Your task to perform on an android device: change the clock display to show seconds Image 0: 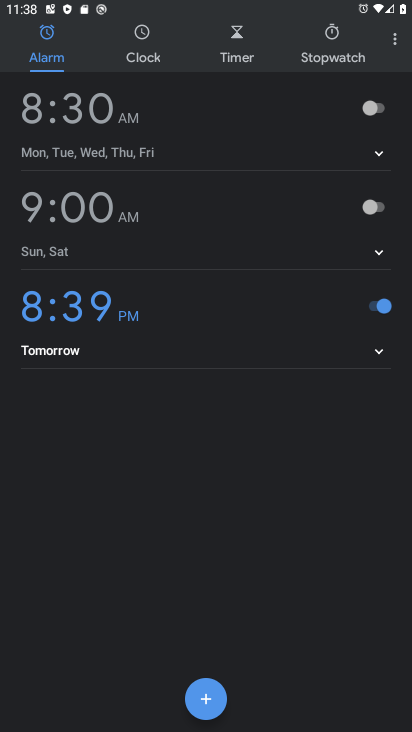
Step 0: press home button
Your task to perform on an android device: change the clock display to show seconds Image 1: 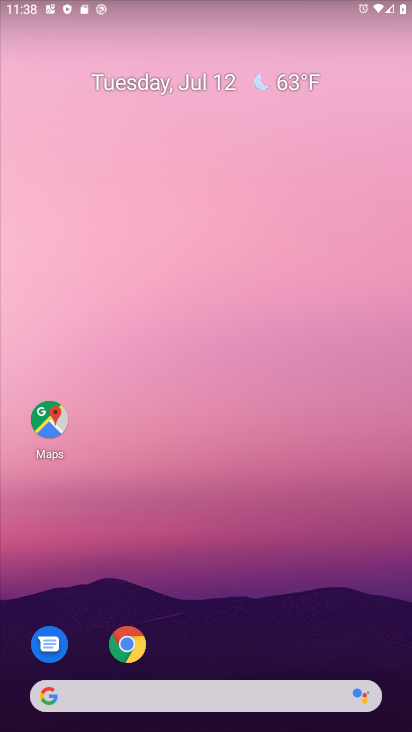
Step 1: drag from (181, 698) to (116, 117)
Your task to perform on an android device: change the clock display to show seconds Image 2: 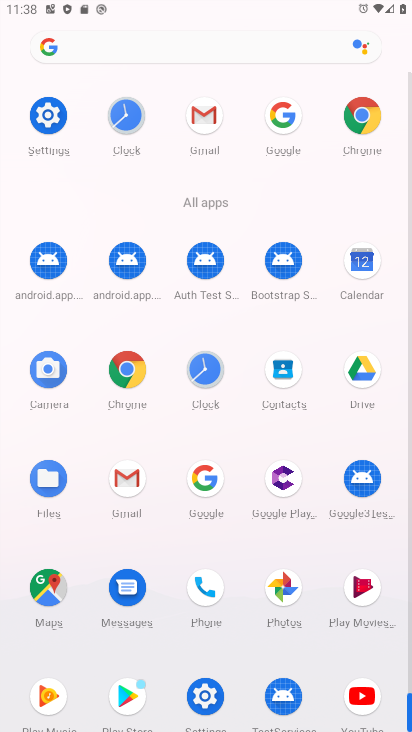
Step 2: click (207, 369)
Your task to perform on an android device: change the clock display to show seconds Image 3: 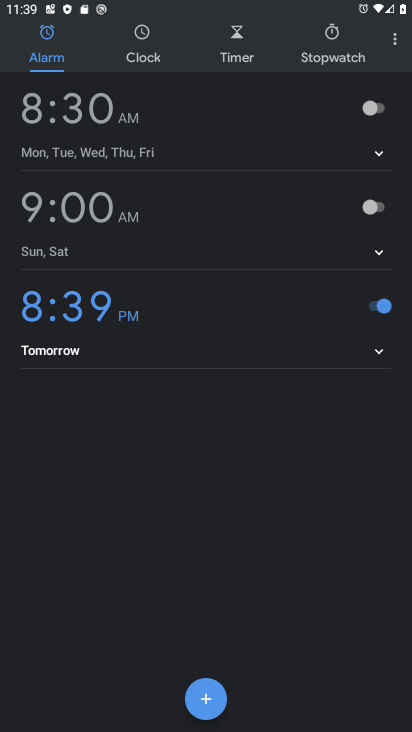
Step 3: click (393, 43)
Your task to perform on an android device: change the clock display to show seconds Image 4: 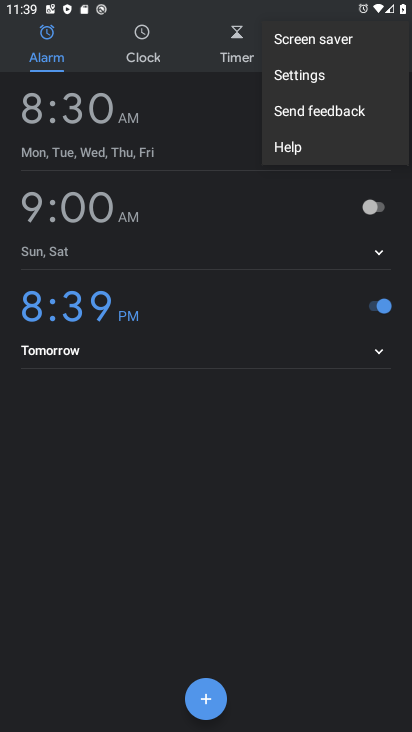
Step 4: click (324, 80)
Your task to perform on an android device: change the clock display to show seconds Image 5: 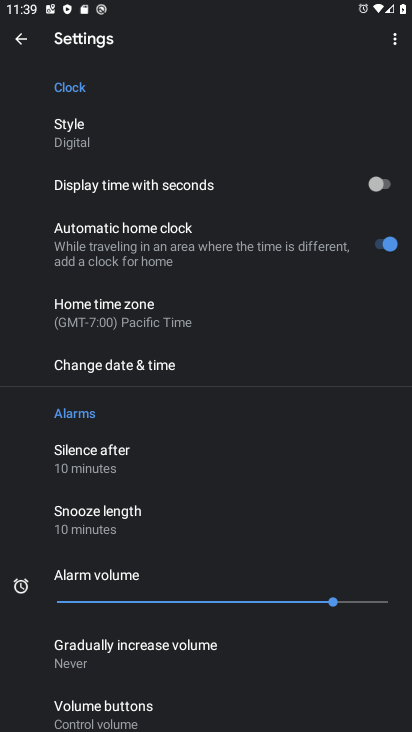
Step 5: click (378, 188)
Your task to perform on an android device: change the clock display to show seconds Image 6: 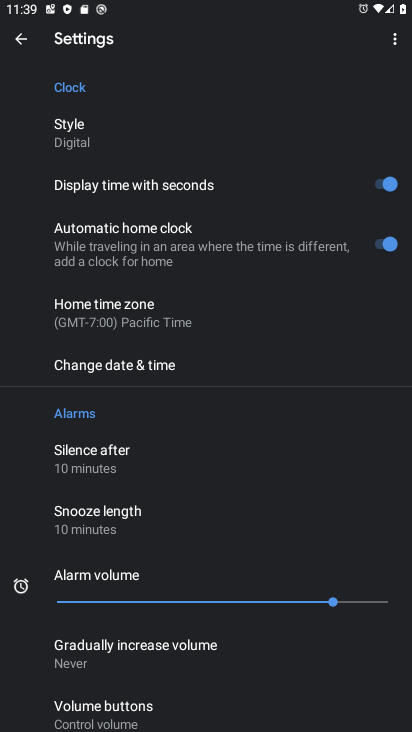
Step 6: task complete